Your task to perform on an android device: turn smart compose on in the gmail app Image 0: 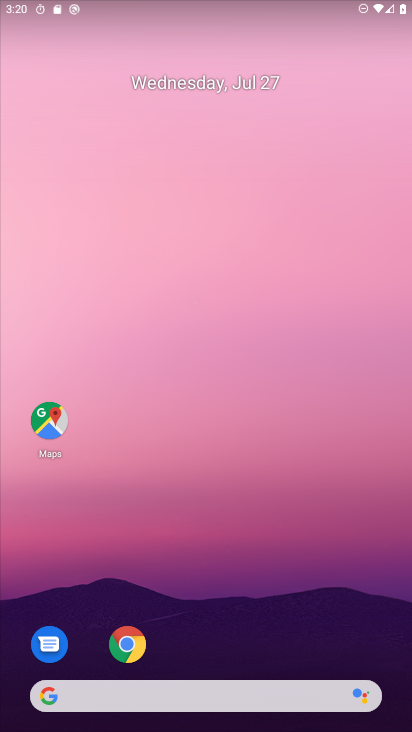
Step 0: drag from (217, 639) to (210, 117)
Your task to perform on an android device: turn smart compose on in the gmail app Image 1: 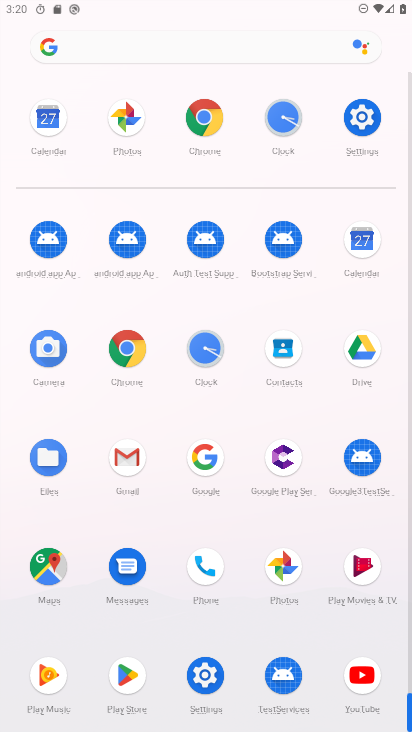
Step 1: click (126, 477)
Your task to perform on an android device: turn smart compose on in the gmail app Image 2: 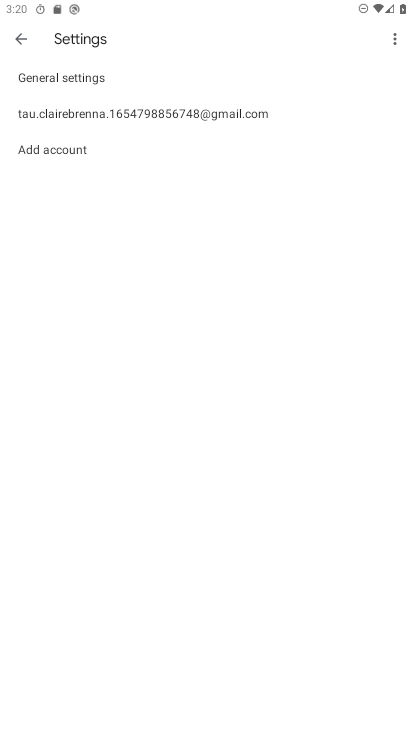
Step 2: click (116, 106)
Your task to perform on an android device: turn smart compose on in the gmail app Image 3: 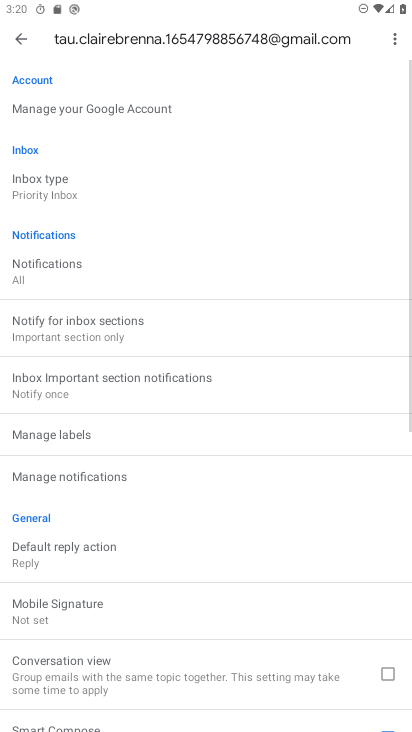
Step 3: task complete